Your task to perform on an android device: Search for Italian restaurants on Maps Image 0: 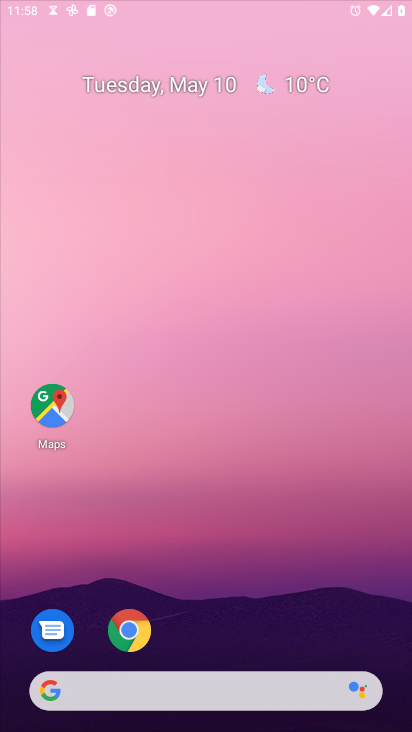
Step 0: click (133, 635)
Your task to perform on an android device: Search for Italian restaurants on Maps Image 1: 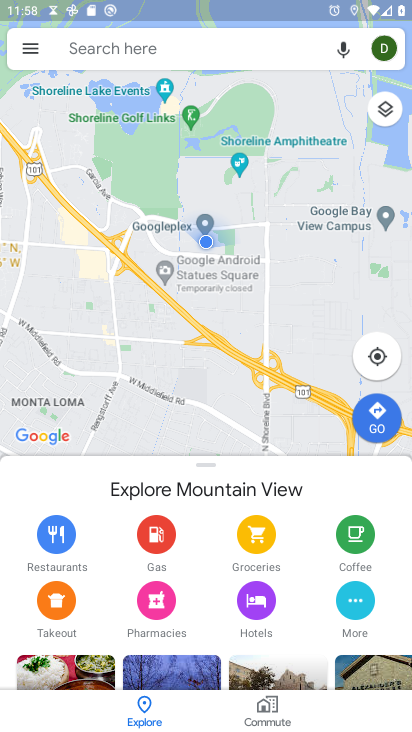
Step 1: click (215, 63)
Your task to perform on an android device: Search for Italian restaurants on Maps Image 2: 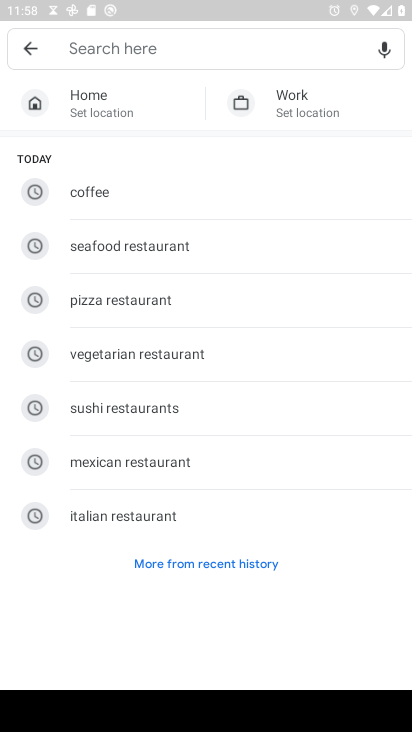
Step 2: click (151, 512)
Your task to perform on an android device: Search for Italian restaurants on Maps Image 3: 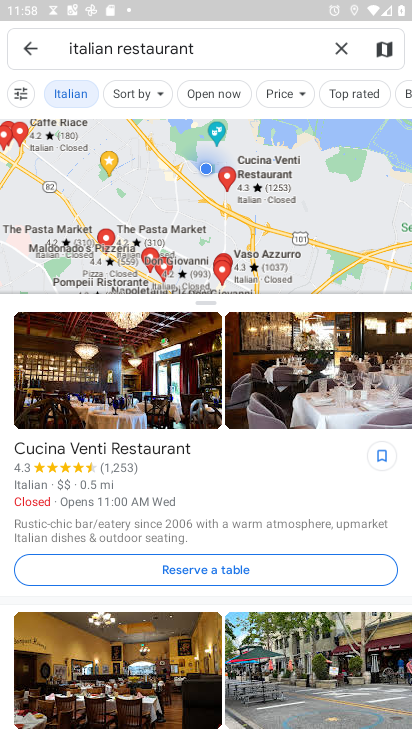
Step 3: task complete